Your task to perform on an android device: Do I have any events today? Image 0: 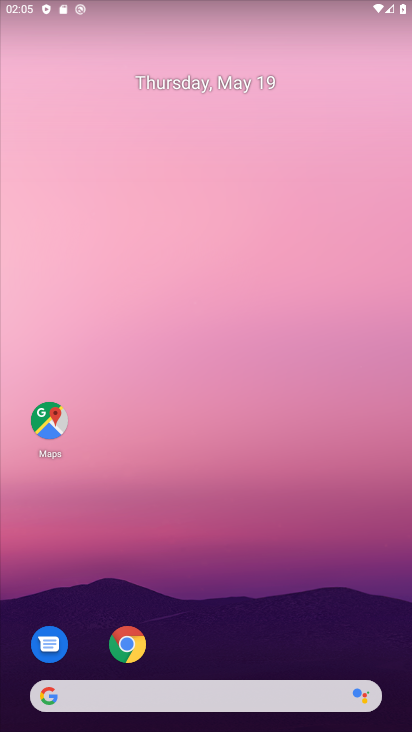
Step 0: drag from (220, 605) to (230, 327)
Your task to perform on an android device: Do I have any events today? Image 1: 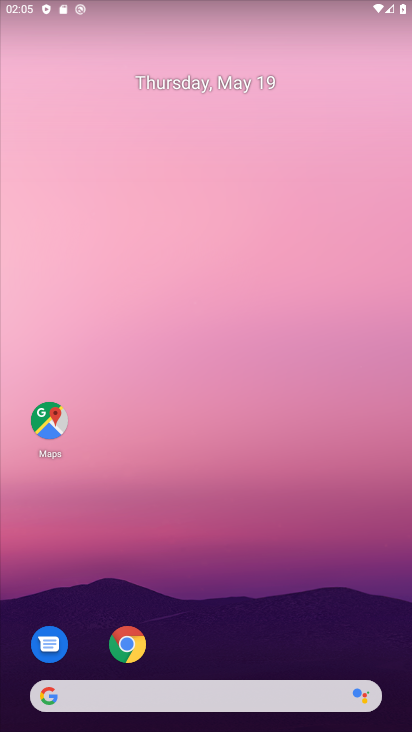
Step 1: drag from (246, 548) to (237, 225)
Your task to perform on an android device: Do I have any events today? Image 2: 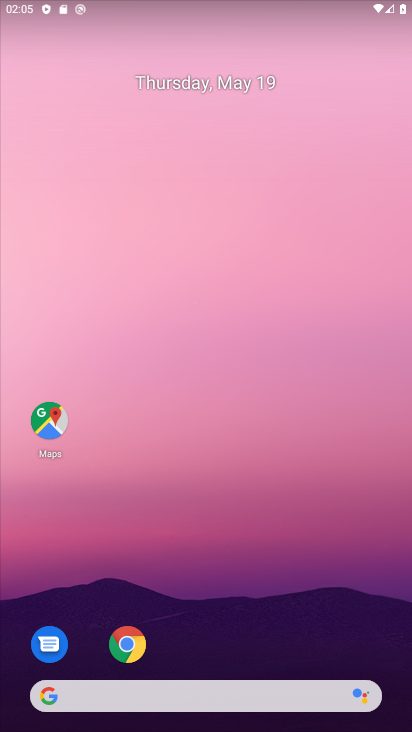
Step 2: drag from (197, 645) to (228, 173)
Your task to perform on an android device: Do I have any events today? Image 3: 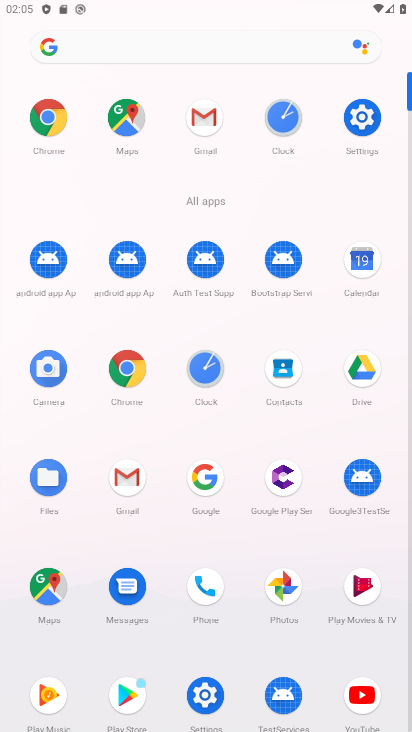
Step 3: click (357, 261)
Your task to perform on an android device: Do I have any events today? Image 4: 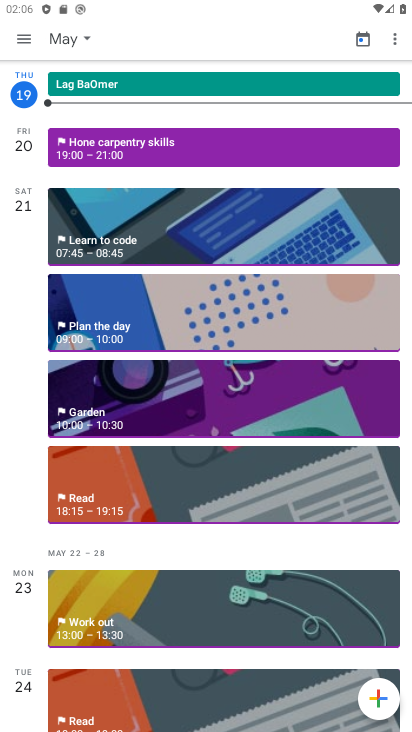
Step 4: task complete